Your task to perform on an android device: turn on sleep mode Image 0: 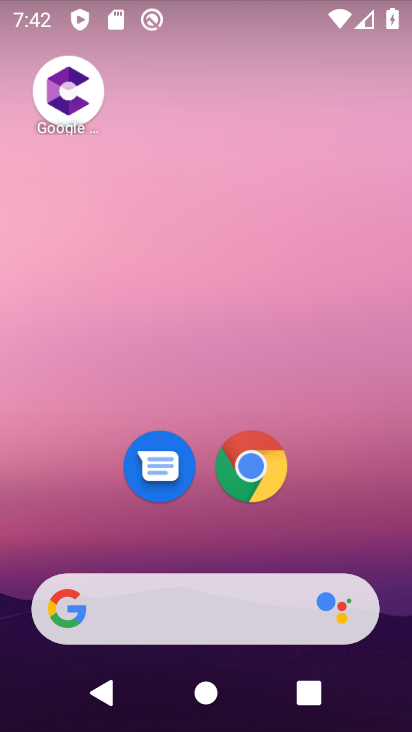
Step 0: drag from (217, 546) to (261, 280)
Your task to perform on an android device: turn on sleep mode Image 1: 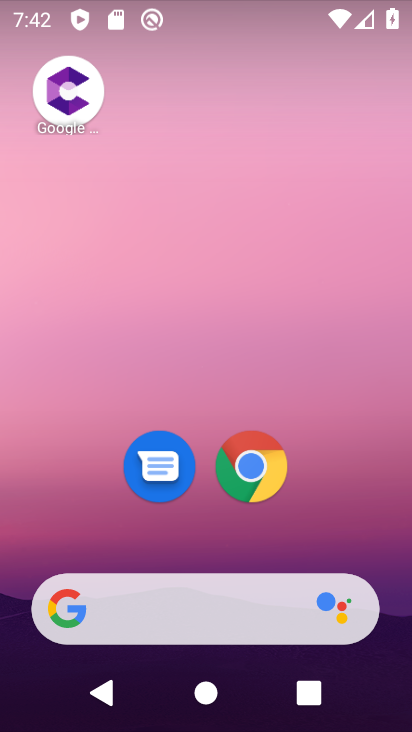
Step 1: drag from (265, 540) to (303, 197)
Your task to perform on an android device: turn on sleep mode Image 2: 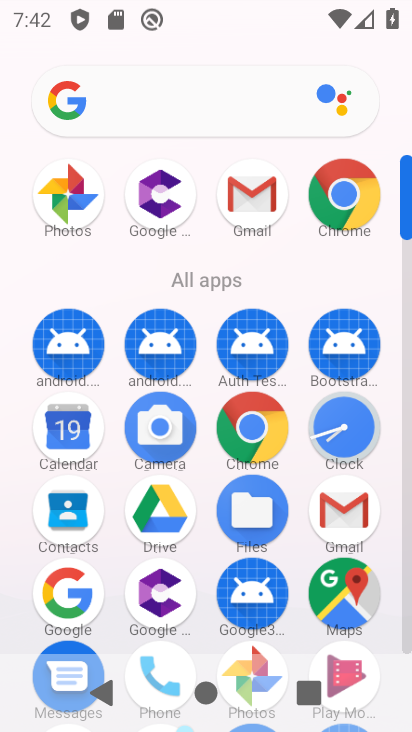
Step 2: drag from (275, 637) to (336, 220)
Your task to perform on an android device: turn on sleep mode Image 3: 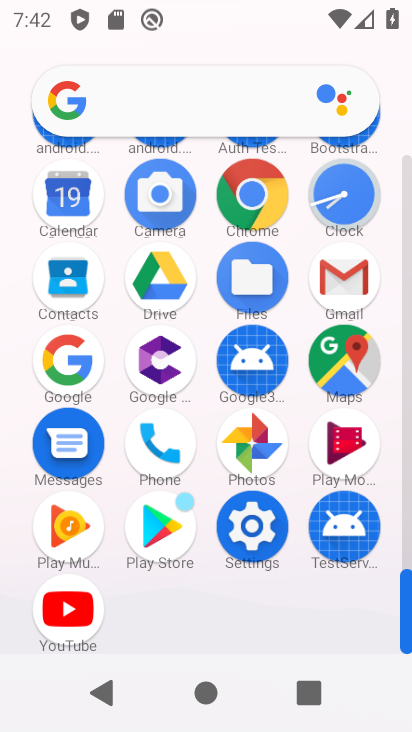
Step 3: click (252, 515)
Your task to perform on an android device: turn on sleep mode Image 4: 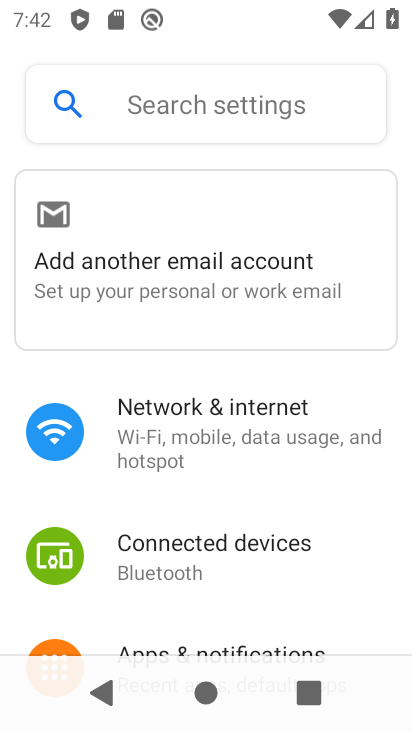
Step 4: task complete